Your task to perform on an android device: Clear the shopping cart on bestbuy.com. Search for "asus rog" on bestbuy.com, select the first entry, add it to the cart, then select checkout. Image 0: 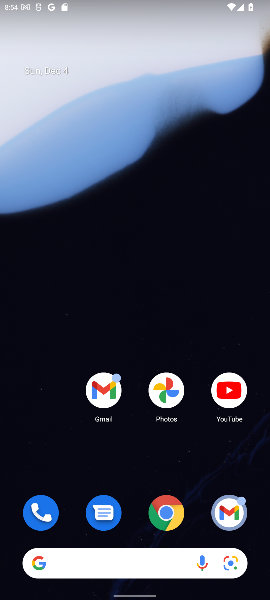
Step 0: click (165, 518)
Your task to perform on an android device: Clear the shopping cart on bestbuy.com. Search for "asus rog" on bestbuy.com, select the first entry, add it to the cart, then select checkout. Image 1: 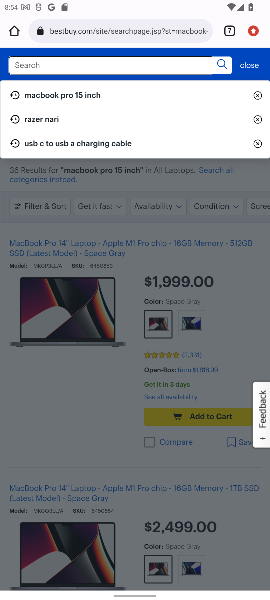
Step 1: click (232, 31)
Your task to perform on an android device: Clear the shopping cart on bestbuy.com. Search for "asus rog" on bestbuy.com, select the first entry, add it to the cart, then select checkout. Image 2: 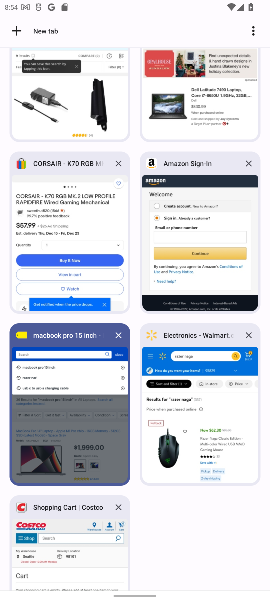
Step 2: click (51, 419)
Your task to perform on an android device: Clear the shopping cart on bestbuy.com. Search for "asus rog" on bestbuy.com, select the first entry, add it to the cart, then select checkout. Image 3: 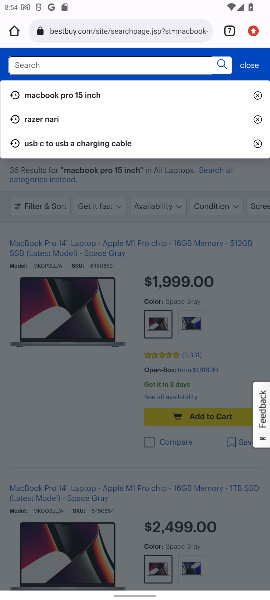
Step 3: type "asus rog"
Your task to perform on an android device: Clear the shopping cart on bestbuy.com. Search for "asus rog" on bestbuy.com, select the first entry, add it to the cart, then select checkout. Image 4: 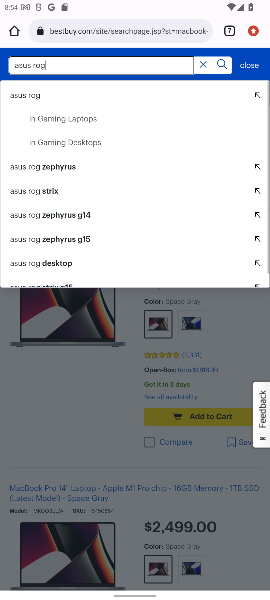
Step 4: click (29, 94)
Your task to perform on an android device: Clear the shopping cart on bestbuy.com. Search for "asus rog" on bestbuy.com, select the first entry, add it to the cart, then select checkout. Image 5: 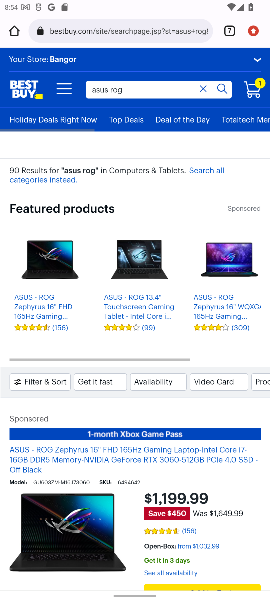
Step 5: drag from (159, 482) to (237, 97)
Your task to perform on an android device: Clear the shopping cart on bestbuy.com. Search for "asus rog" on bestbuy.com, select the first entry, add it to the cart, then select checkout. Image 6: 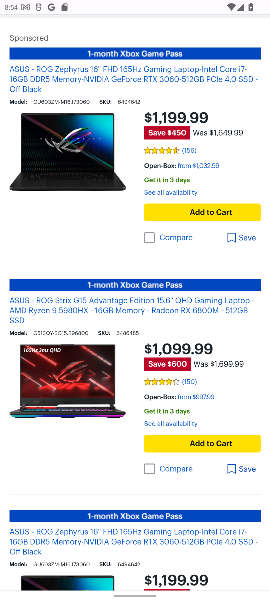
Step 6: click (186, 206)
Your task to perform on an android device: Clear the shopping cart on bestbuy.com. Search for "asus rog" on bestbuy.com, select the first entry, add it to the cart, then select checkout. Image 7: 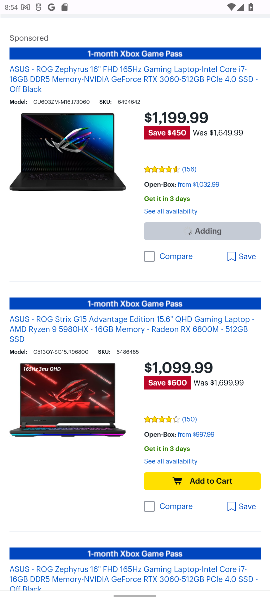
Step 7: task complete